Your task to perform on an android device: turn off translation in the chrome app Image 0: 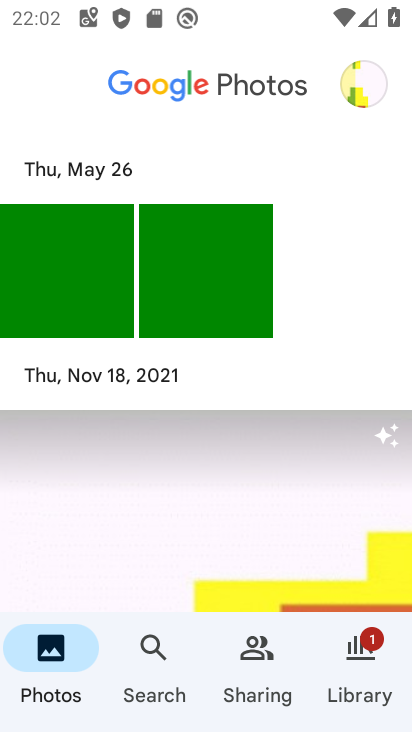
Step 0: press home button
Your task to perform on an android device: turn off translation in the chrome app Image 1: 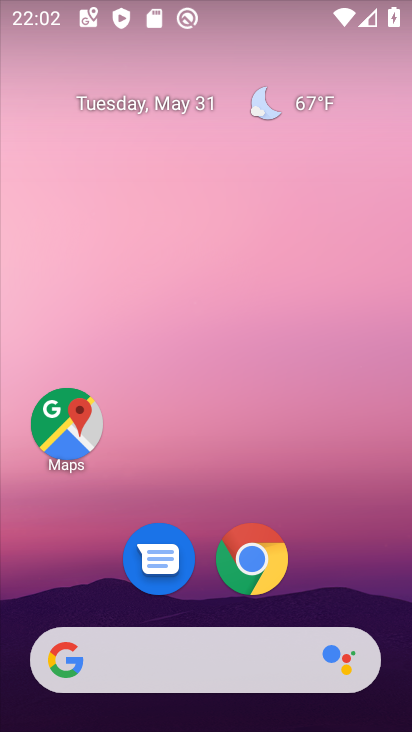
Step 1: click (258, 563)
Your task to perform on an android device: turn off translation in the chrome app Image 2: 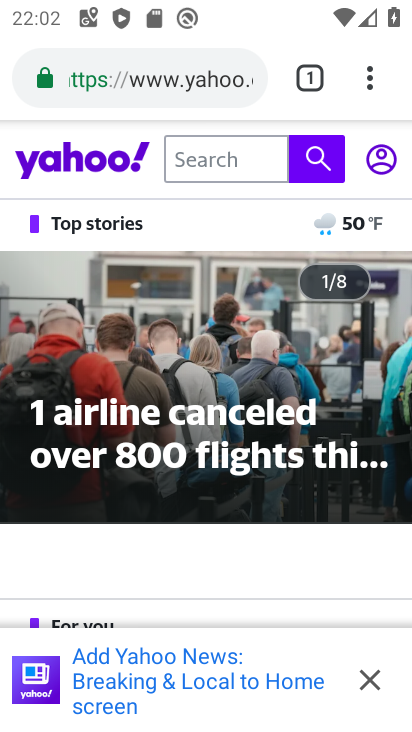
Step 2: click (358, 74)
Your task to perform on an android device: turn off translation in the chrome app Image 3: 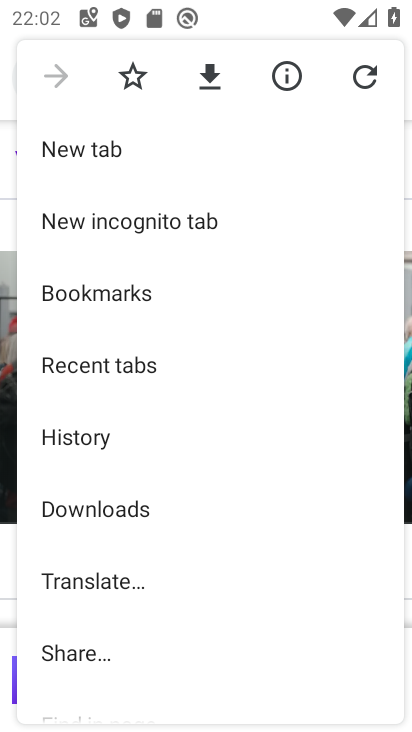
Step 3: drag from (250, 678) to (250, 259)
Your task to perform on an android device: turn off translation in the chrome app Image 4: 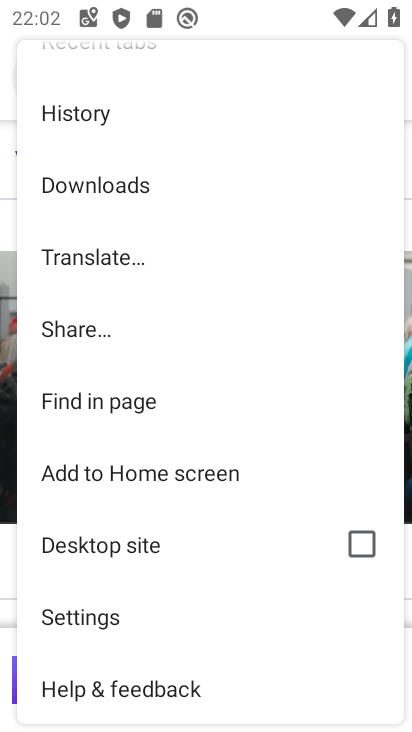
Step 4: click (96, 609)
Your task to perform on an android device: turn off translation in the chrome app Image 5: 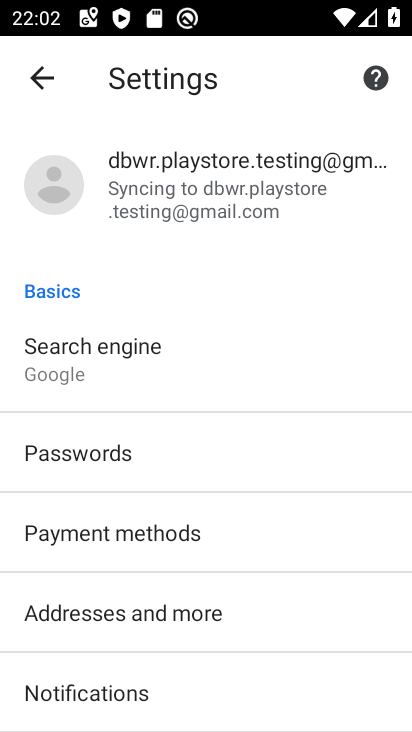
Step 5: drag from (177, 617) to (227, 124)
Your task to perform on an android device: turn off translation in the chrome app Image 6: 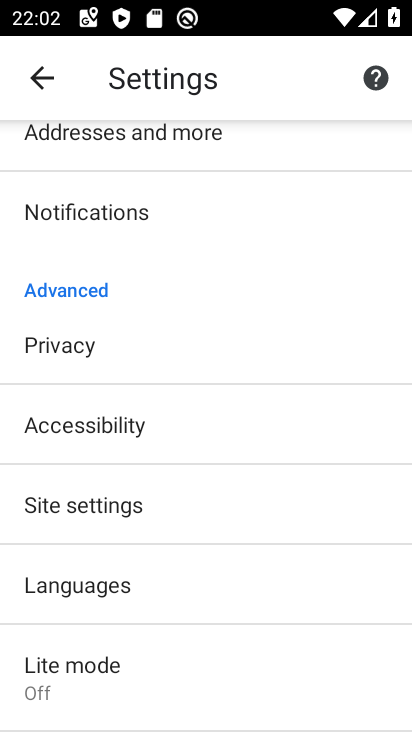
Step 6: click (113, 499)
Your task to perform on an android device: turn off translation in the chrome app Image 7: 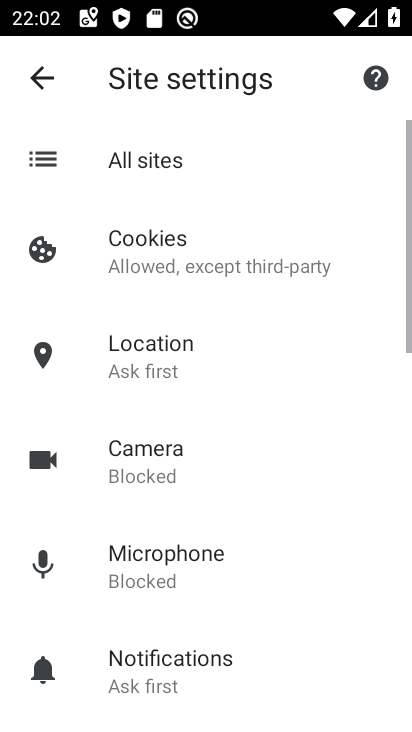
Step 7: drag from (218, 595) to (236, 163)
Your task to perform on an android device: turn off translation in the chrome app Image 8: 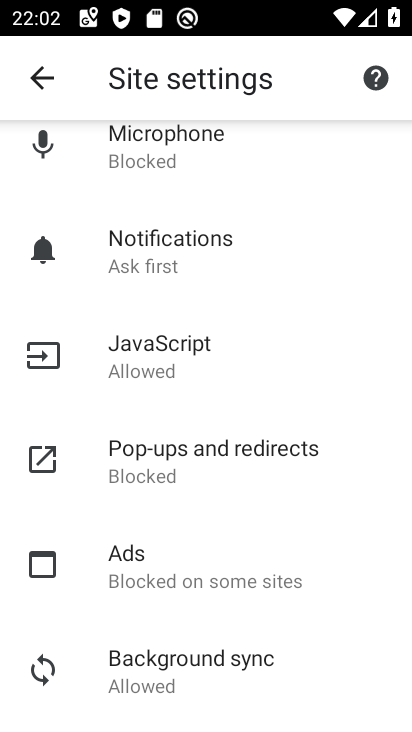
Step 8: drag from (208, 664) to (197, 333)
Your task to perform on an android device: turn off translation in the chrome app Image 9: 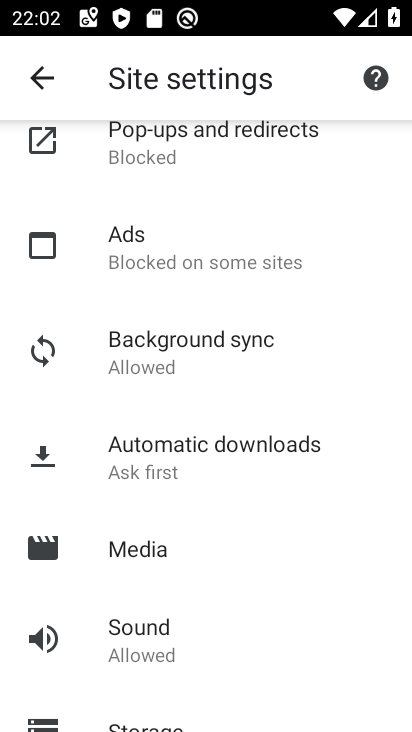
Step 9: press back button
Your task to perform on an android device: turn off translation in the chrome app Image 10: 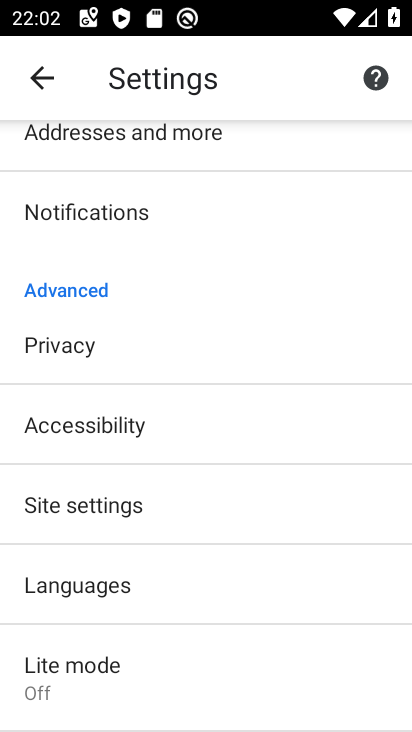
Step 10: click (117, 588)
Your task to perform on an android device: turn off translation in the chrome app Image 11: 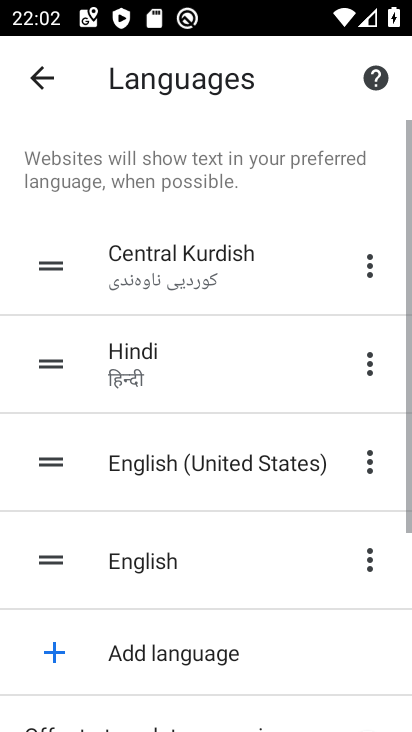
Step 11: drag from (276, 682) to (336, 190)
Your task to perform on an android device: turn off translation in the chrome app Image 12: 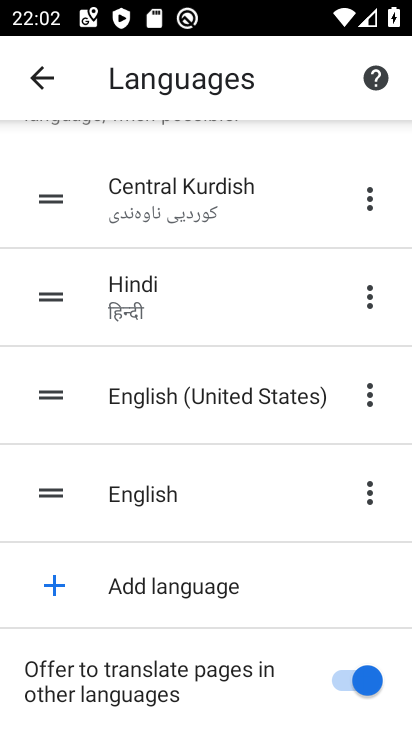
Step 12: click (352, 684)
Your task to perform on an android device: turn off translation in the chrome app Image 13: 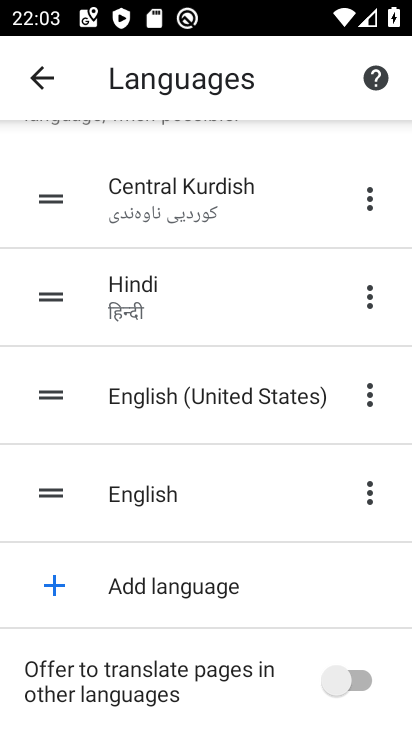
Step 13: task complete